Your task to perform on an android device: Is it going to rain this weekend? Image 0: 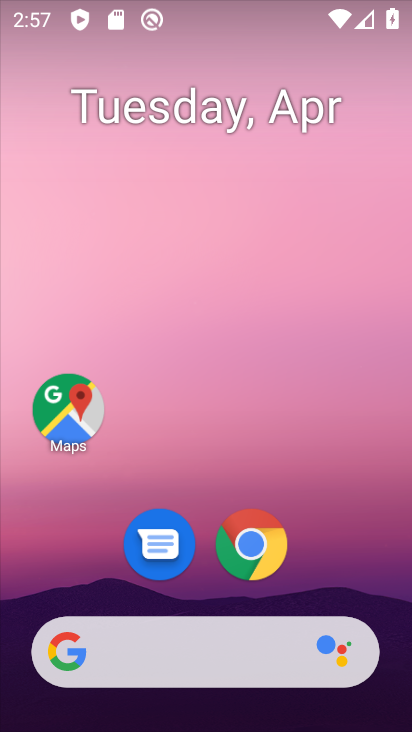
Step 0: drag from (319, 596) to (362, 138)
Your task to perform on an android device: Is it going to rain this weekend? Image 1: 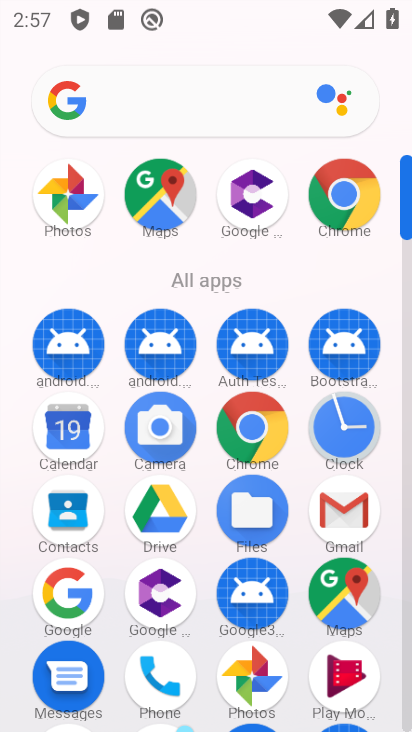
Step 1: click (143, 108)
Your task to perform on an android device: Is it going to rain this weekend? Image 2: 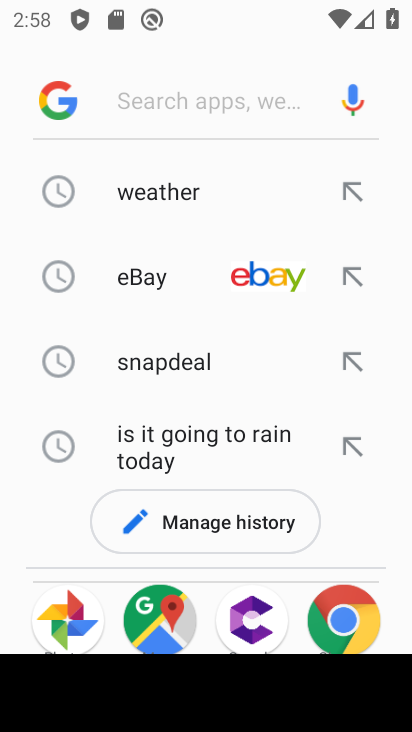
Step 2: type "Is it going to rain this weekend?"
Your task to perform on an android device: Is it going to rain this weekend? Image 3: 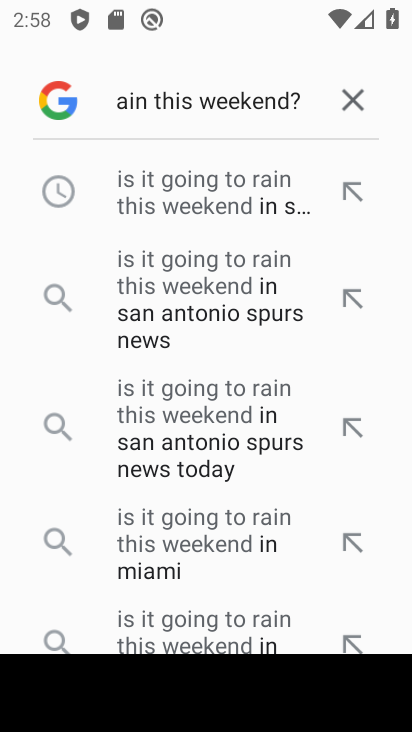
Step 3: click (154, 192)
Your task to perform on an android device: Is it going to rain this weekend? Image 4: 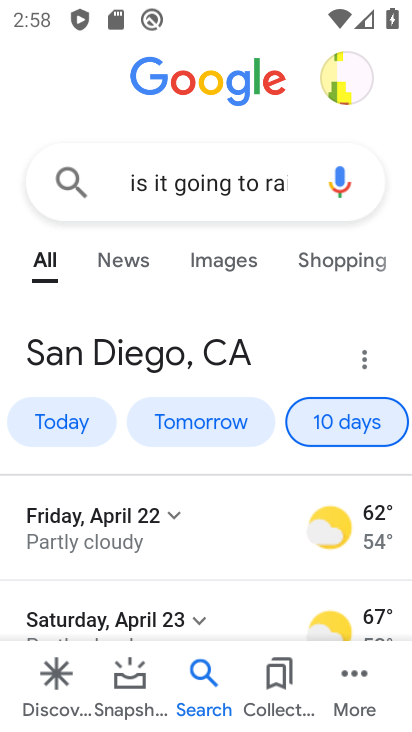
Step 4: task complete